Your task to perform on an android device: Show me productivity apps on the Play Store Image 0: 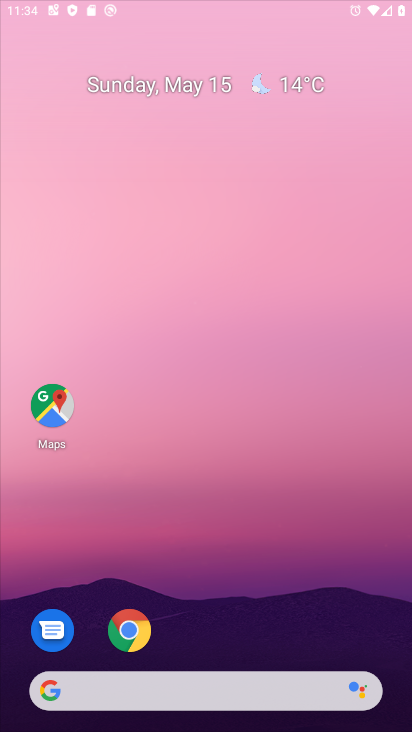
Step 0: click (129, 635)
Your task to perform on an android device: Show me productivity apps on the Play Store Image 1: 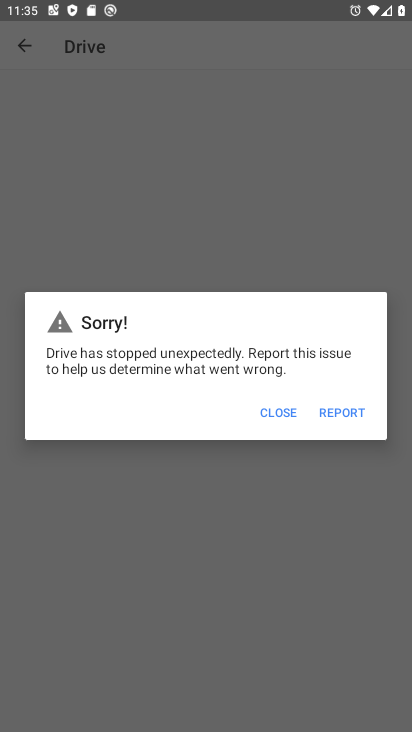
Step 1: press home button
Your task to perform on an android device: Show me productivity apps on the Play Store Image 2: 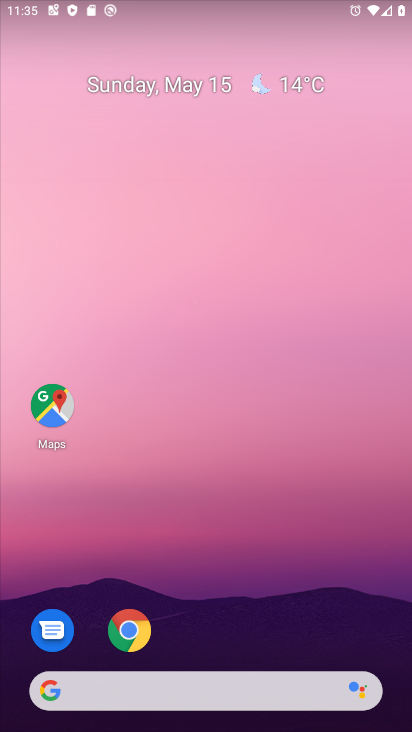
Step 2: drag from (212, 725) to (222, 264)
Your task to perform on an android device: Show me productivity apps on the Play Store Image 3: 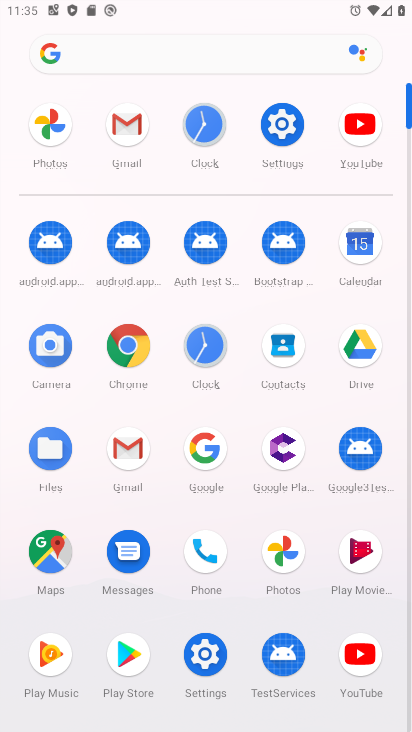
Step 3: drag from (255, 587) to (238, 189)
Your task to perform on an android device: Show me productivity apps on the Play Store Image 4: 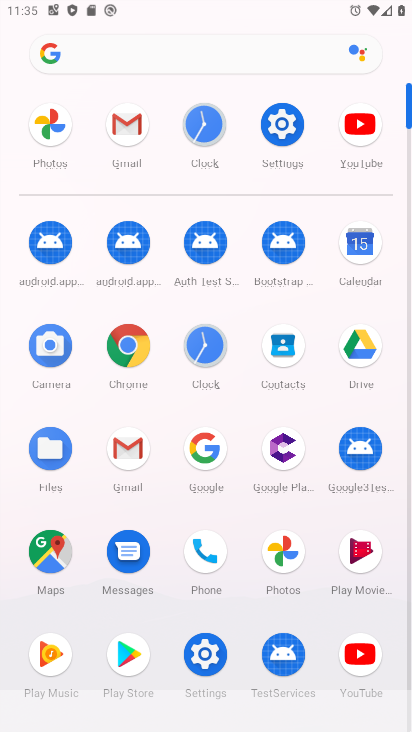
Step 4: click (125, 649)
Your task to perform on an android device: Show me productivity apps on the Play Store Image 5: 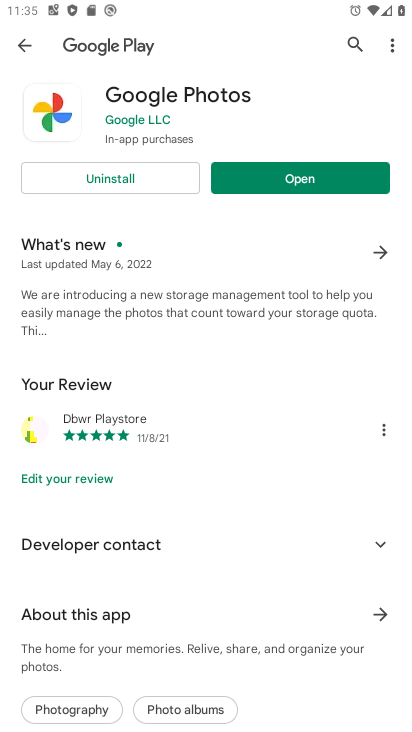
Step 5: click (28, 46)
Your task to perform on an android device: Show me productivity apps on the Play Store Image 6: 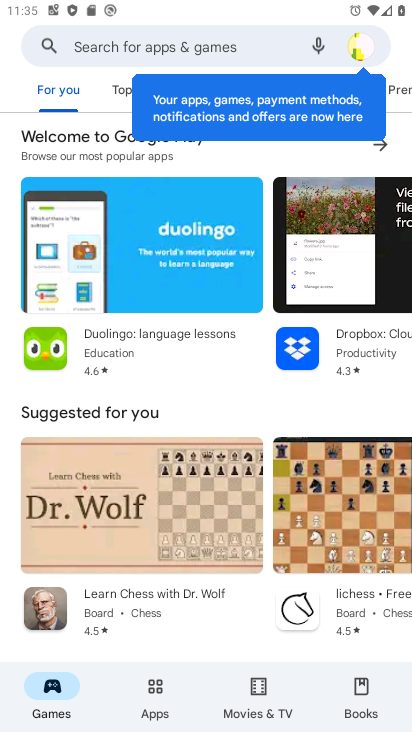
Step 6: click (158, 689)
Your task to perform on an android device: Show me productivity apps on the Play Store Image 7: 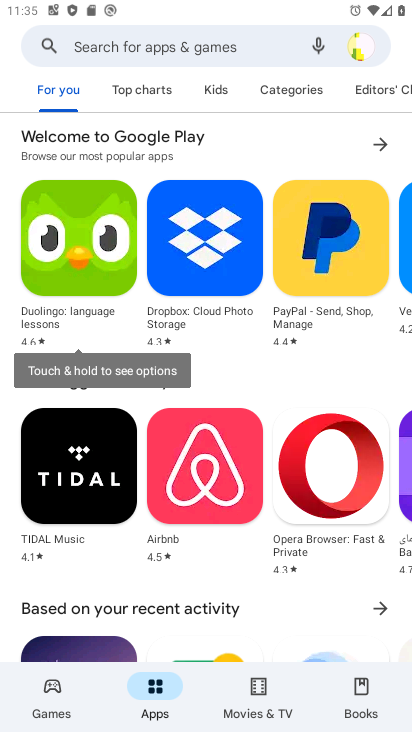
Step 7: drag from (359, 89) to (151, 84)
Your task to perform on an android device: Show me productivity apps on the Play Store Image 8: 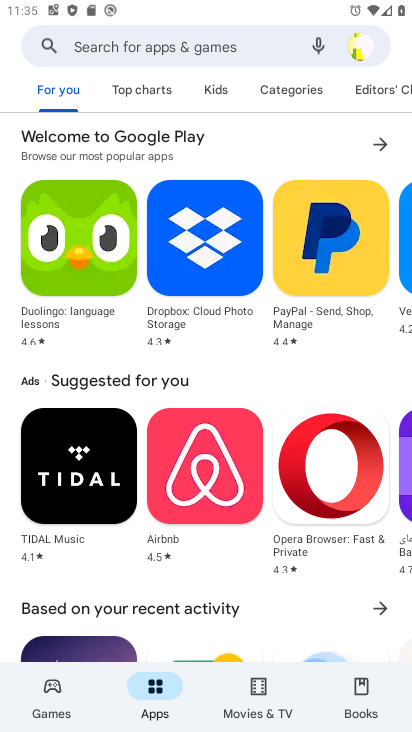
Step 8: drag from (367, 87) to (144, 78)
Your task to perform on an android device: Show me productivity apps on the Play Store Image 9: 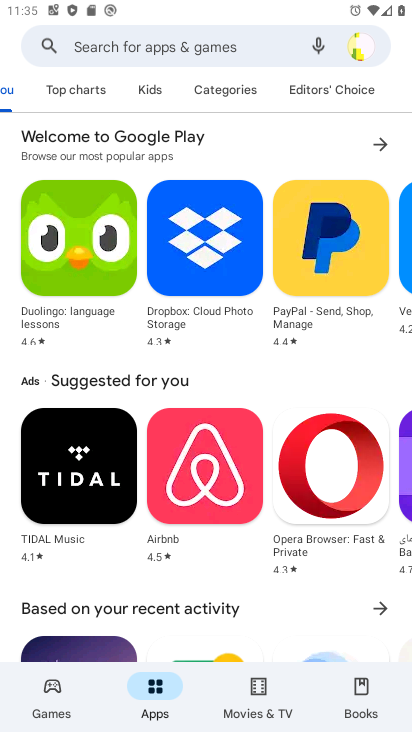
Step 9: click (211, 88)
Your task to perform on an android device: Show me productivity apps on the Play Store Image 10: 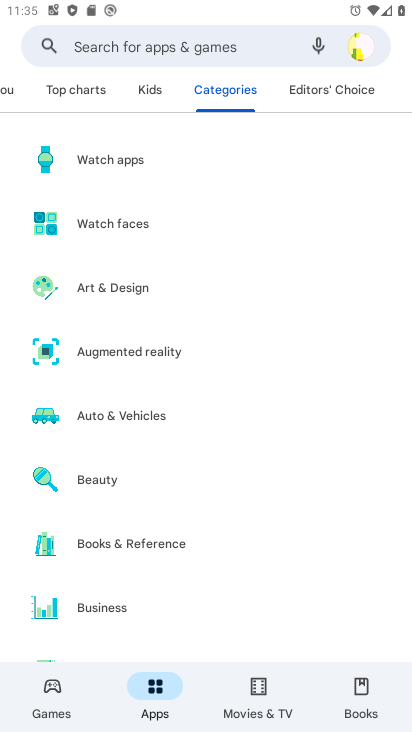
Step 10: drag from (136, 596) to (121, 271)
Your task to perform on an android device: Show me productivity apps on the Play Store Image 11: 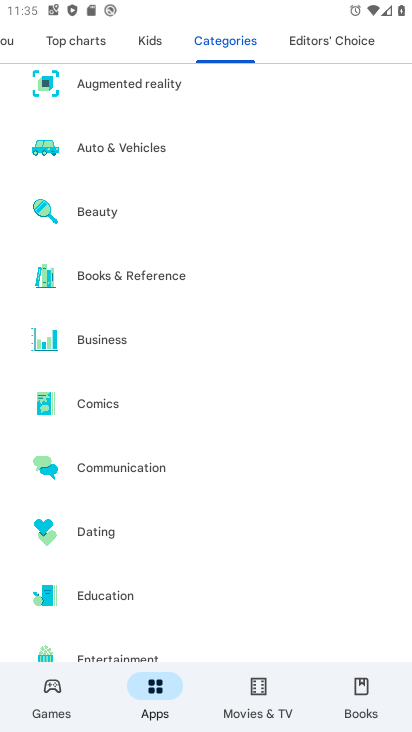
Step 11: drag from (161, 572) to (147, 208)
Your task to perform on an android device: Show me productivity apps on the Play Store Image 12: 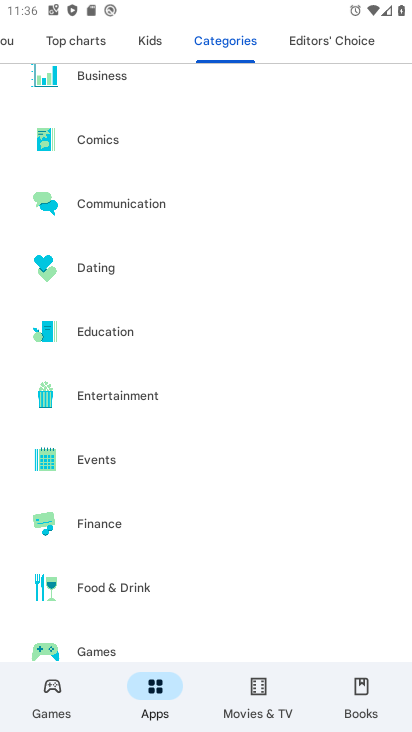
Step 12: drag from (148, 629) to (172, 246)
Your task to perform on an android device: Show me productivity apps on the Play Store Image 13: 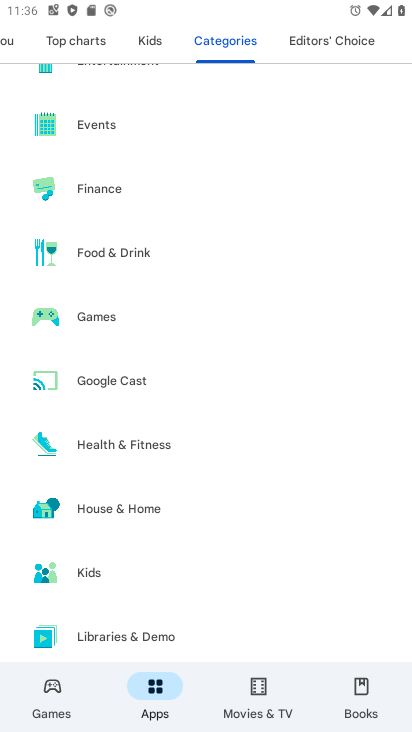
Step 13: drag from (150, 612) to (160, 203)
Your task to perform on an android device: Show me productivity apps on the Play Store Image 14: 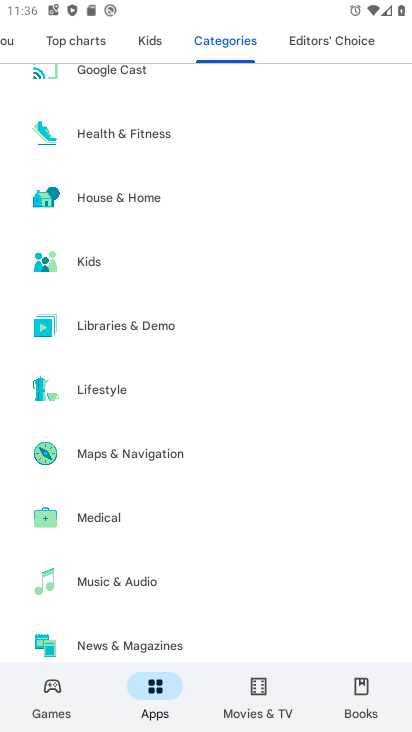
Step 14: drag from (123, 547) to (123, 292)
Your task to perform on an android device: Show me productivity apps on the Play Store Image 15: 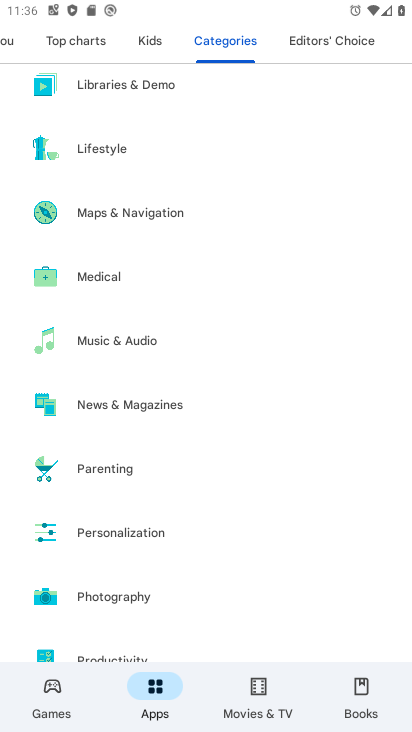
Step 15: drag from (119, 545) to (118, 317)
Your task to perform on an android device: Show me productivity apps on the Play Store Image 16: 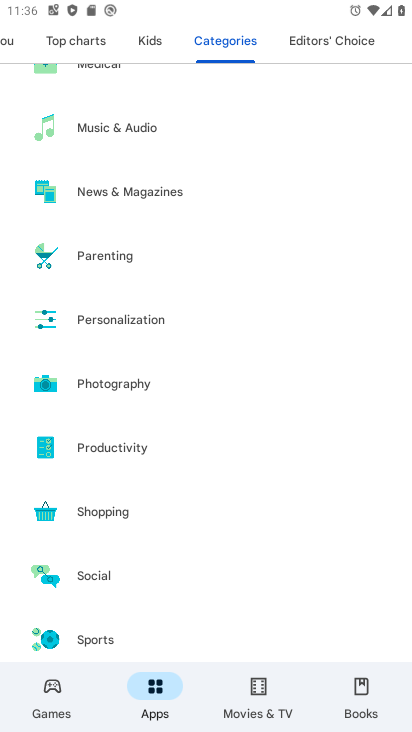
Step 16: click (117, 445)
Your task to perform on an android device: Show me productivity apps on the Play Store Image 17: 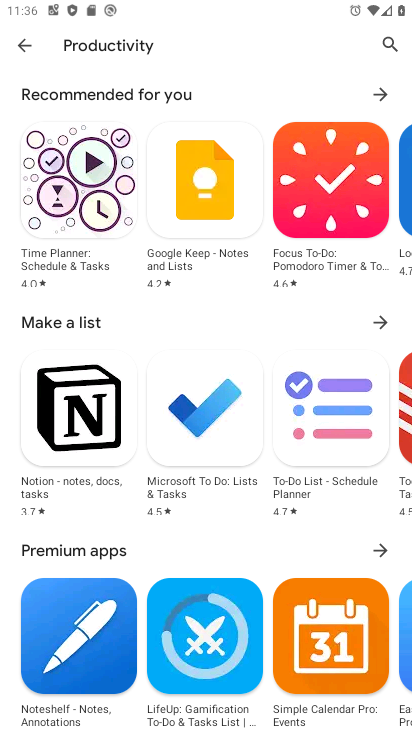
Step 17: task complete